Your task to perform on an android device: find photos in the google photos app Image 0: 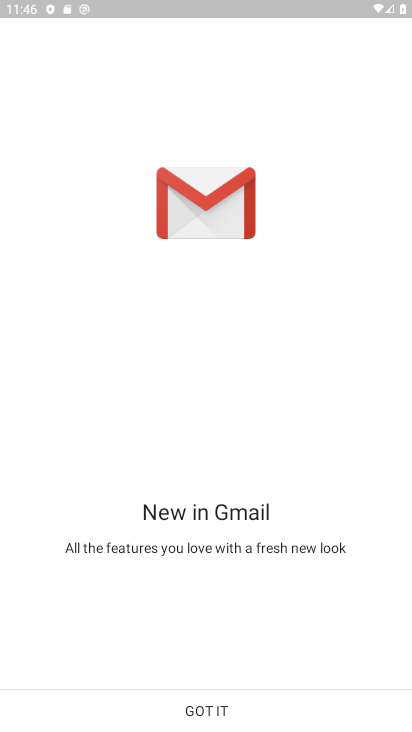
Step 0: press home button
Your task to perform on an android device: find photos in the google photos app Image 1: 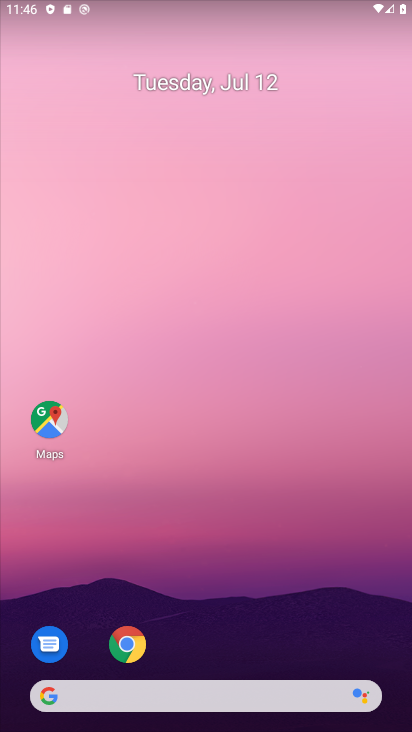
Step 1: drag from (218, 646) to (220, 51)
Your task to perform on an android device: find photos in the google photos app Image 2: 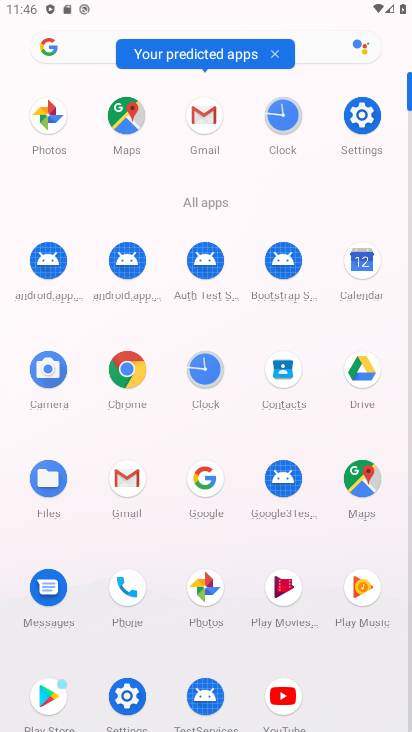
Step 2: click (208, 588)
Your task to perform on an android device: find photos in the google photos app Image 3: 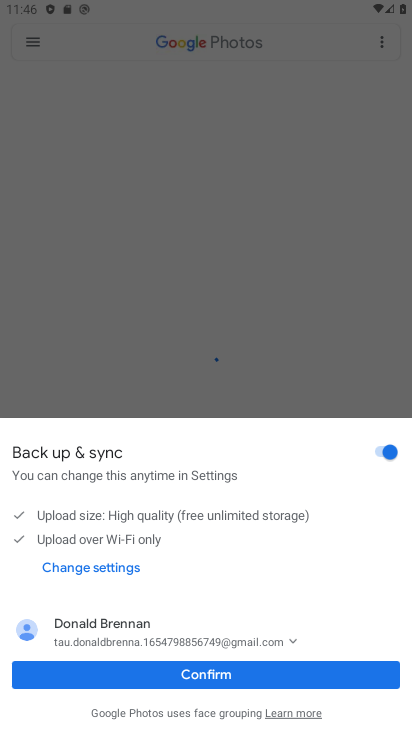
Step 3: click (217, 670)
Your task to perform on an android device: find photos in the google photos app Image 4: 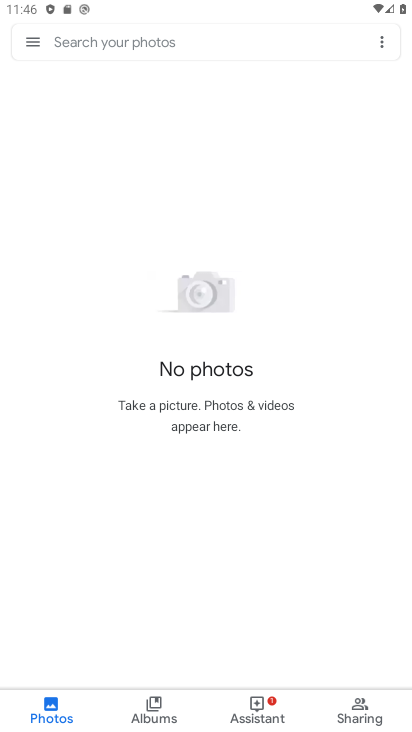
Step 4: task complete